Your task to perform on an android device: Open Maps and search for coffee Image 0: 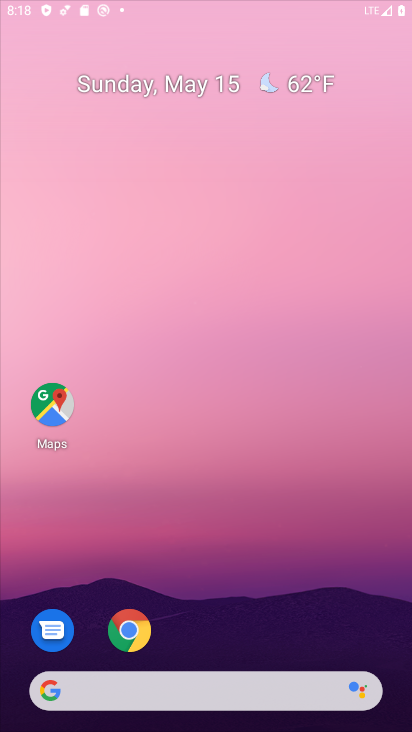
Step 0: drag from (203, 592) to (209, 48)
Your task to perform on an android device: Open Maps and search for coffee Image 1: 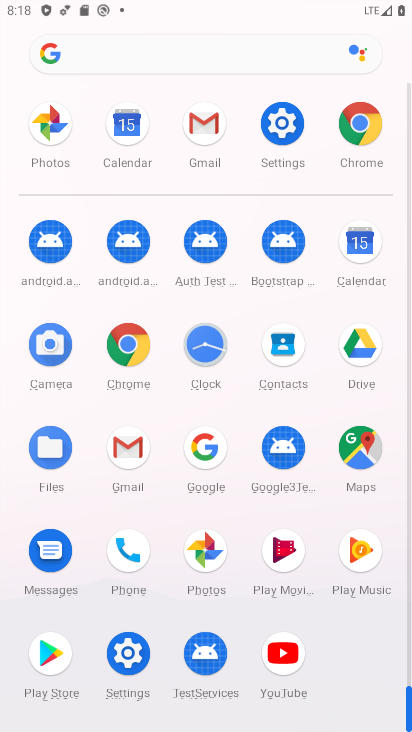
Step 1: click (349, 457)
Your task to perform on an android device: Open Maps and search for coffee Image 2: 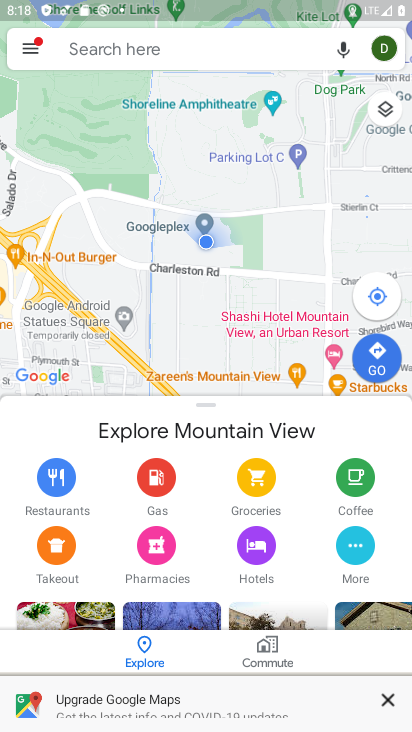
Step 2: click (121, 43)
Your task to perform on an android device: Open Maps and search for coffee Image 3: 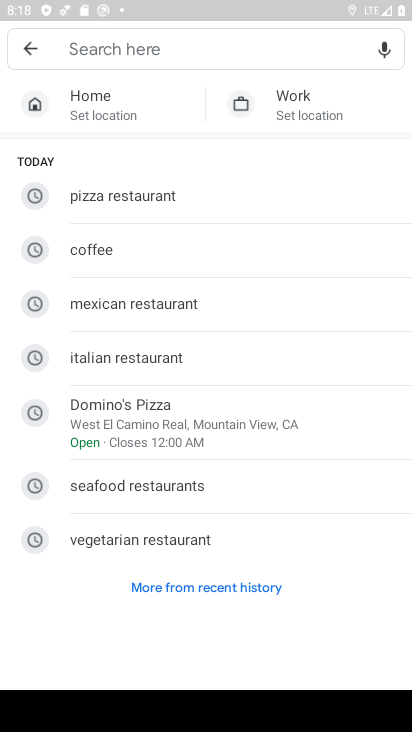
Step 3: type "coffee"
Your task to perform on an android device: Open Maps and search for coffee Image 4: 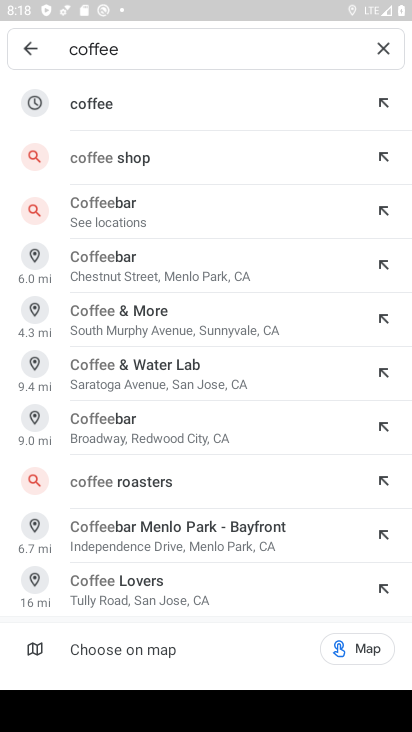
Step 4: click (118, 91)
Your task to perform on an android device: Open Maps and search for coffee Image 5: 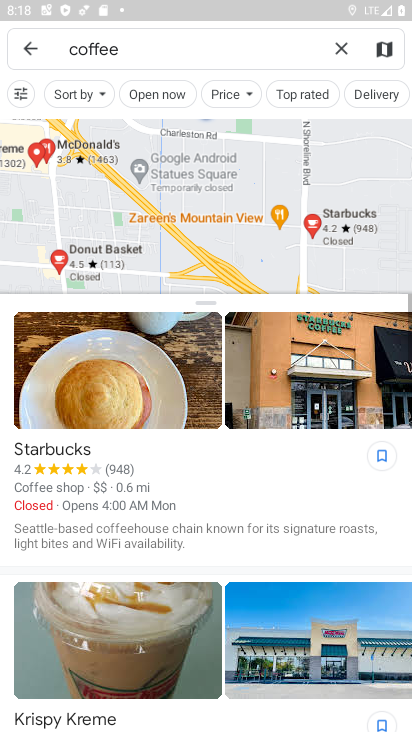
Step 5: task complete